Your task to perform on an android device: Search for Italian restaurants on Maps Image 0: 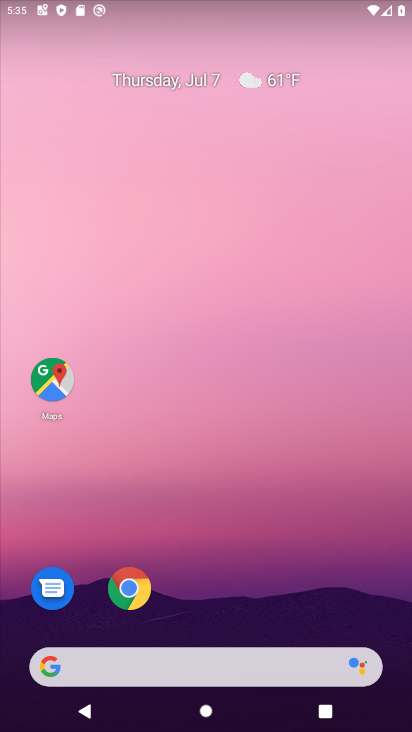
Step 0: drag from (212, 573) to (335, 0)
Your task to perform on an android device: Search for Italian restaurants on Maps Image 1: 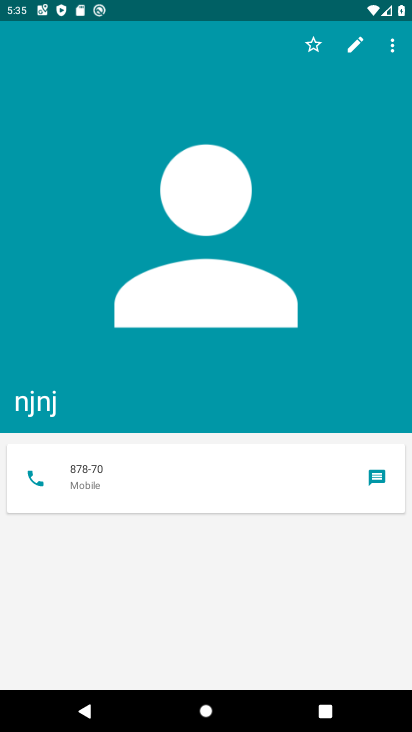
Step 1: press back button
Your task to perform on an android device: Search for Italian restaurants on Maps Image 2: 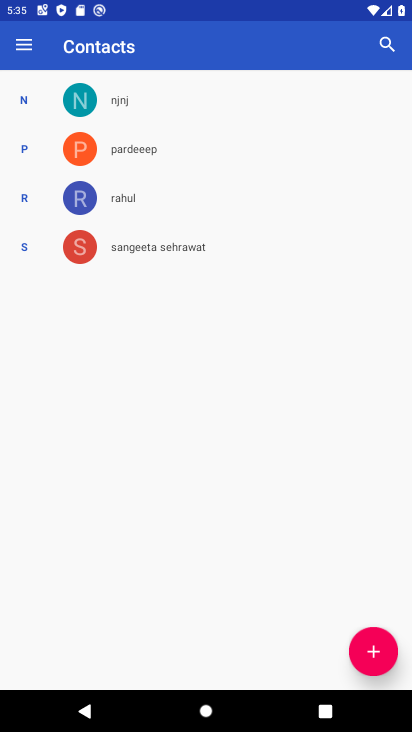
Step 2: press back button
Your task to perform on an android device: Search for Italian restaurants on Maps Image 3: 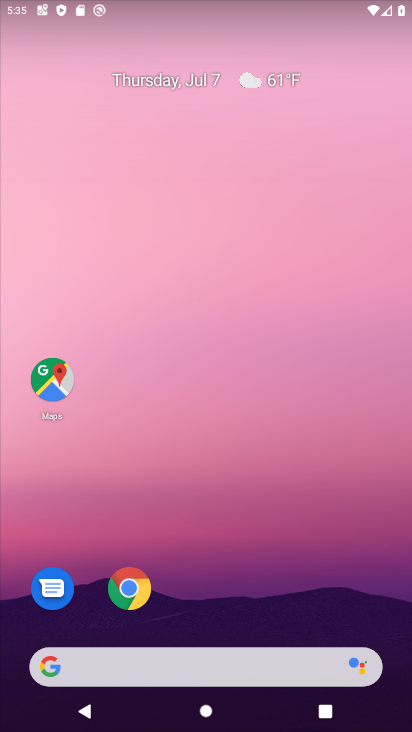
Step 3: click (48, 381)
Your task to perform on an android device: Search for Italian restaurants on Maps Image 4: 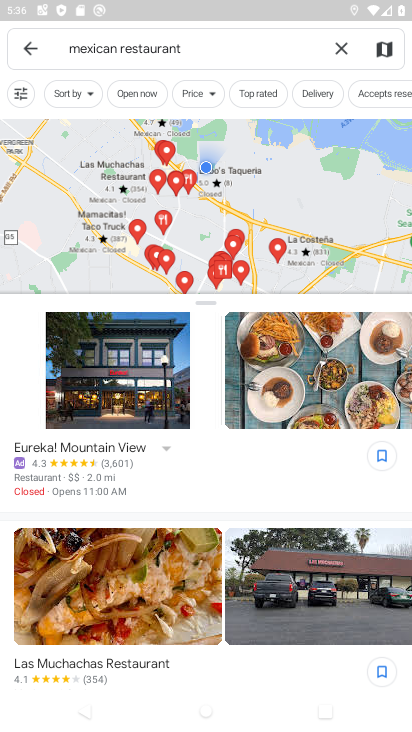
Step 4: click (343, 45)
Your task to perform on an android device: Search for Italian restaurants on Maps Image 5: 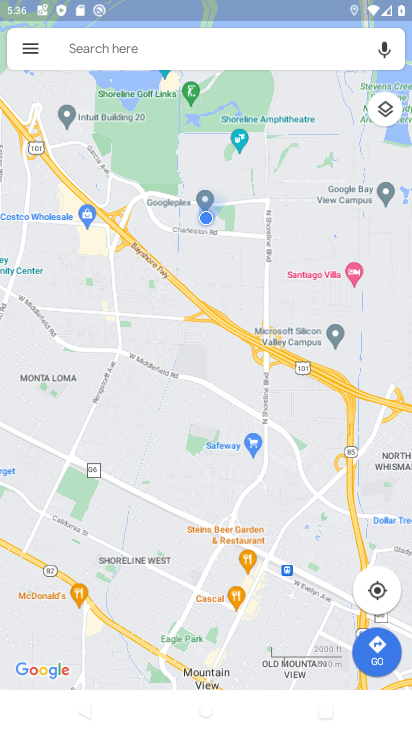
Step 5: click (158, 38)
Your task to perform on an android device: Search for Italian restaurants on Maps Image 6: 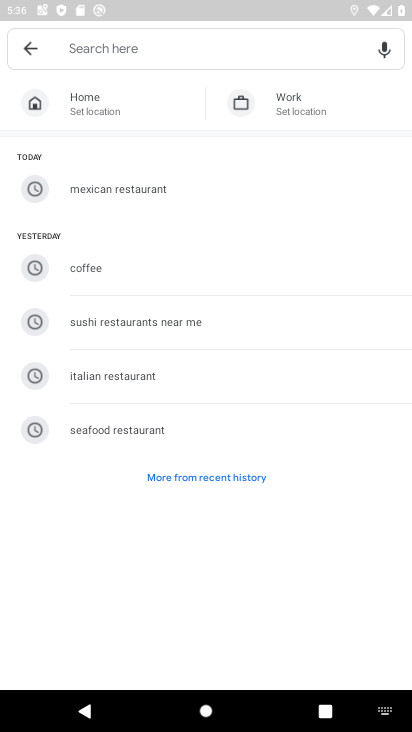
Step 6: type "italian restaurant"
Your task to perform on an android device: Search for Italian restaurants on Maps Image 7: 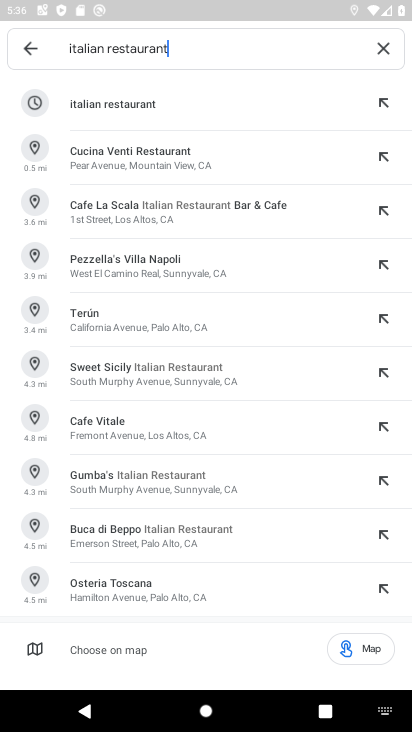
Step 7: click (114, 99)
Your task to perform on an android device: Search for Italian restaurants on Maps Image 8: 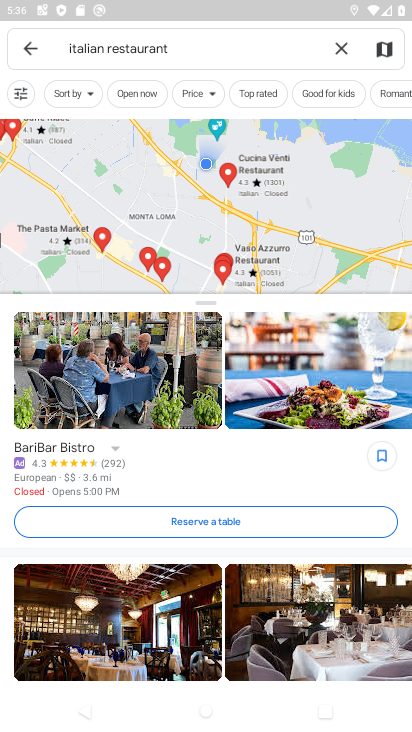
Step 8: task complete